Your task to perform on an android device: What's on my calendar today? Image 0: 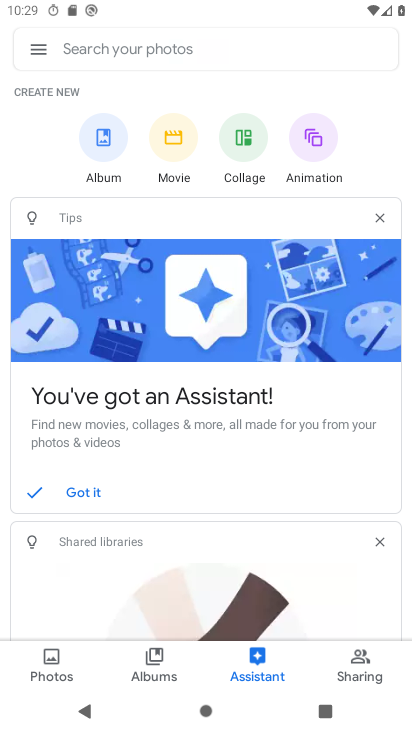
Step 0: press home button
Your task to perform on an android device: What's on my calendar today? Image 1: 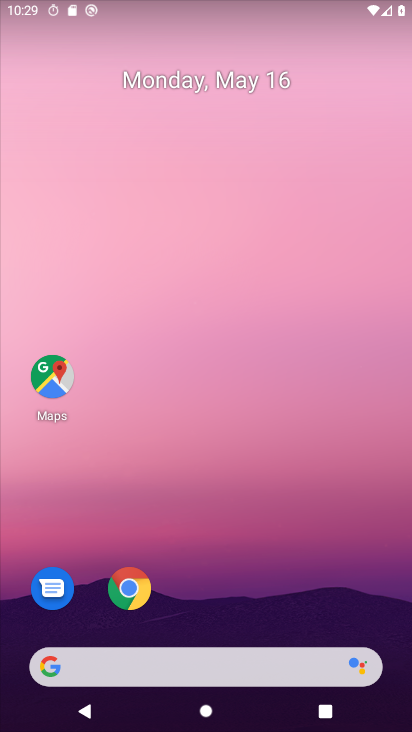
Step 1: drag from (206, 538) to (213, 55)
Your task to perform on an android device: What's on my calendar today? Image 2: 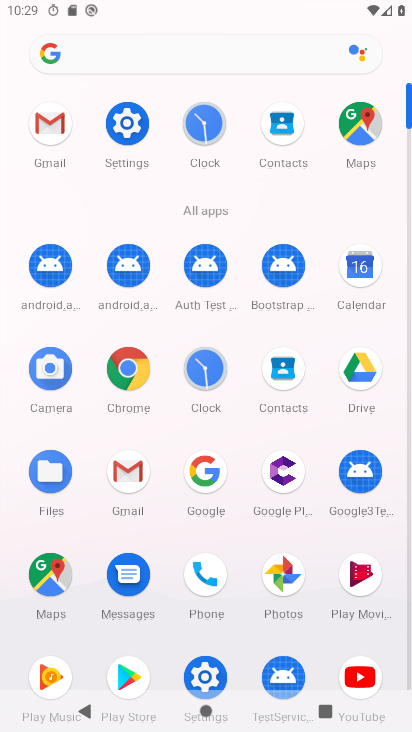
Step 2: click (358, 263)
Your task to perform on an android device: What's on my calendar today? Image 3: 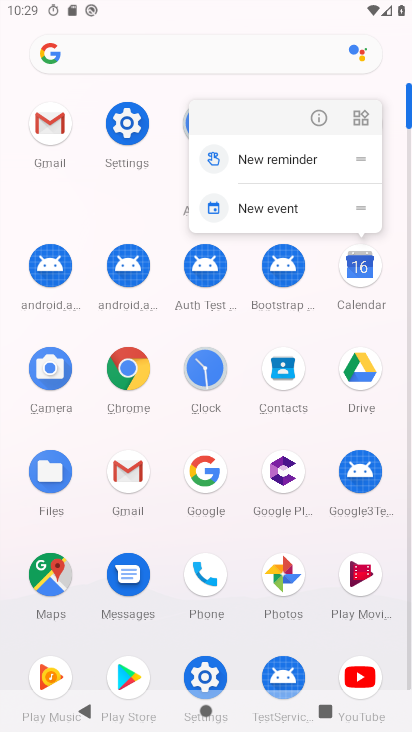
Step 3: click (358, 267)
Your task to perform on an android device: What's on my calendar today? Image 4: 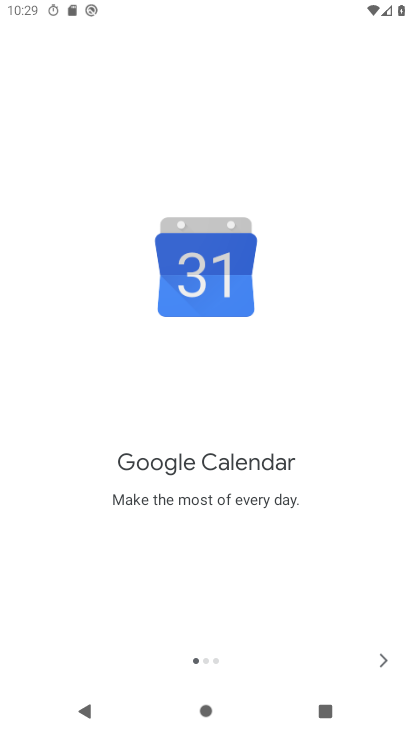
Step 4: click (379, 652)
Your task to perform on an android device: What's on my calendar today? Image 5: 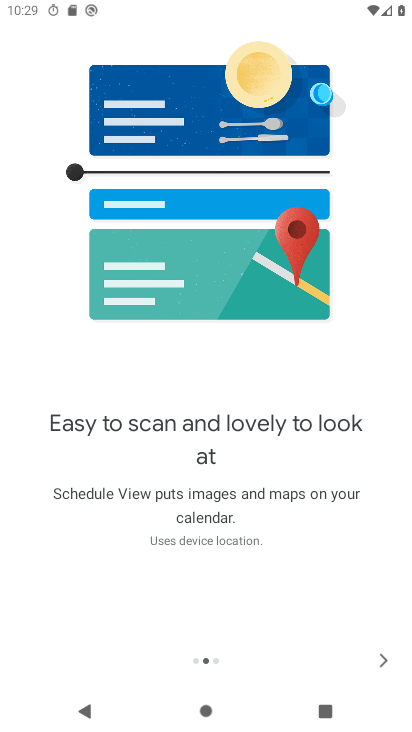
Step 5: click (384, 660)
Your task to perform on an android device: What's on my calendar today? Image 6: 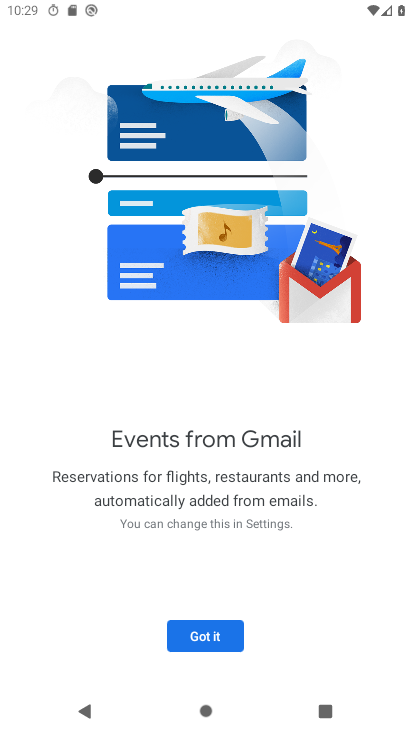
Step 6: click (222, 624)
Your task to perform on an android device: What's on my calendar today? Image 7: 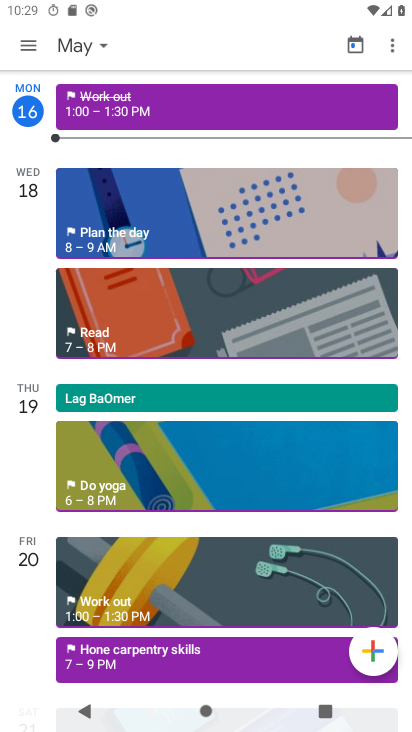
Step 7: drag from (28, 583) to (52, 112)
Your task to perform on an android device: What's on my calendar today? Image 8: 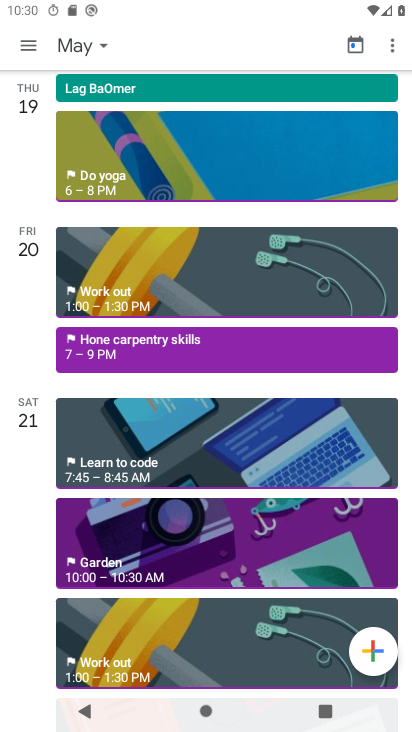
Step 8: drag from (45, 105) to (16, 672)
Your task to perform on an android device: What's on my calendar today? Image 9: 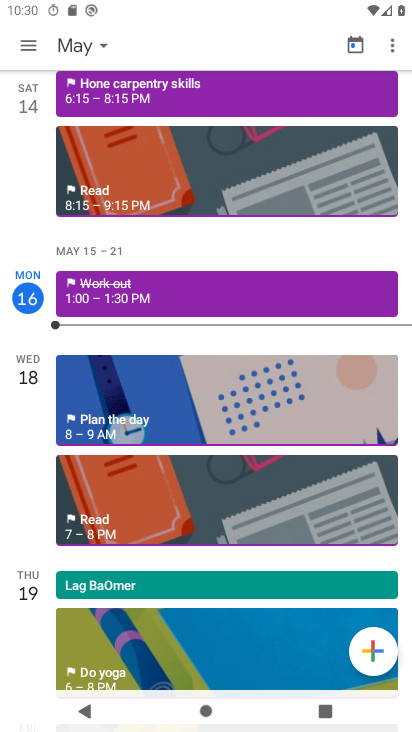
Step 9: click (32, 312)
Your task to perform on an android device: What's on my calendar today? Image 10: 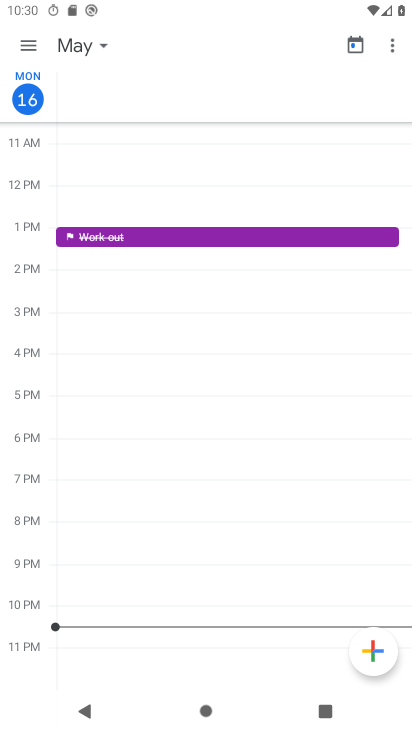
Step 10: task complete